Your task to perform on an android device: Clear the cart on target. Search for "razer kraken" on target, select the first entry, and add it to the cart. Image 0: 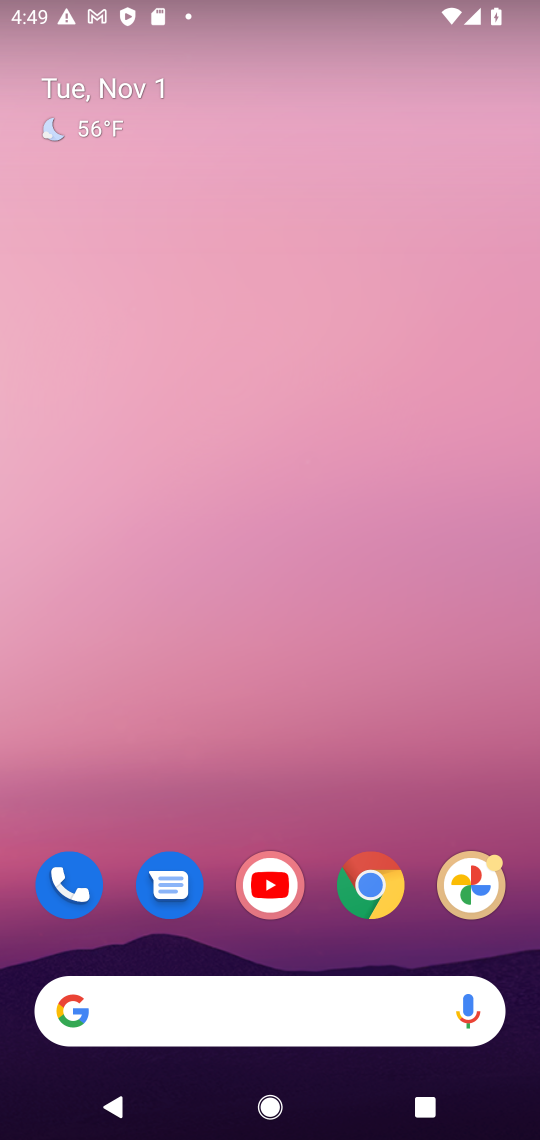
Step 0: click (369, 884)
Your task to perform on an android device: Clear the cart on target. Search for "razer kraken" on target, select the first entry, and add it to the cart. Image 1: 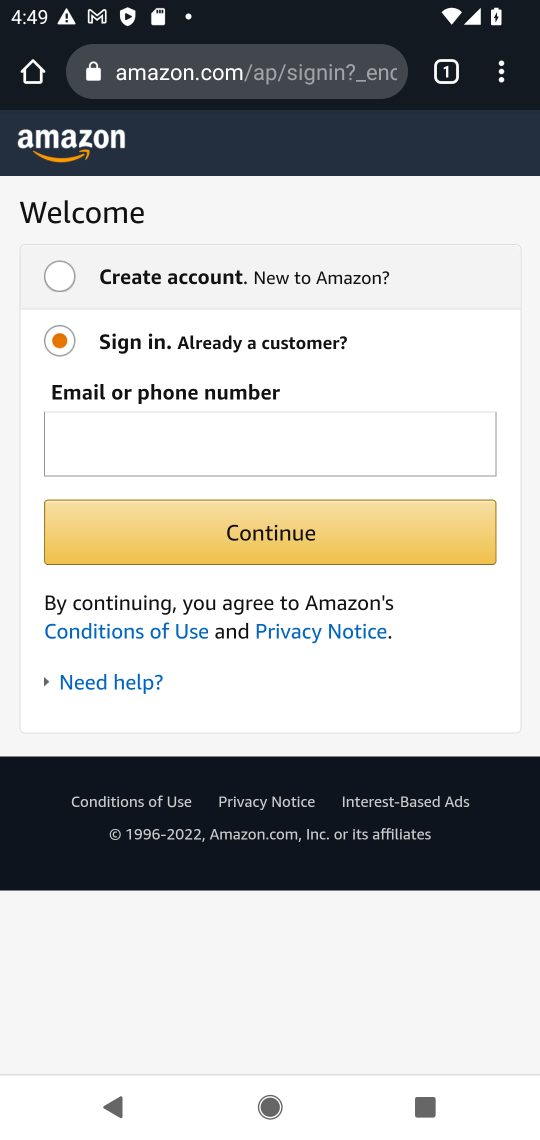
Step 1: click (251, 58)
Your task to perform on an android device: Clear the cart on target. Search for "razer kraken" on target, select the first entry, and add it to the cart. Image 2: 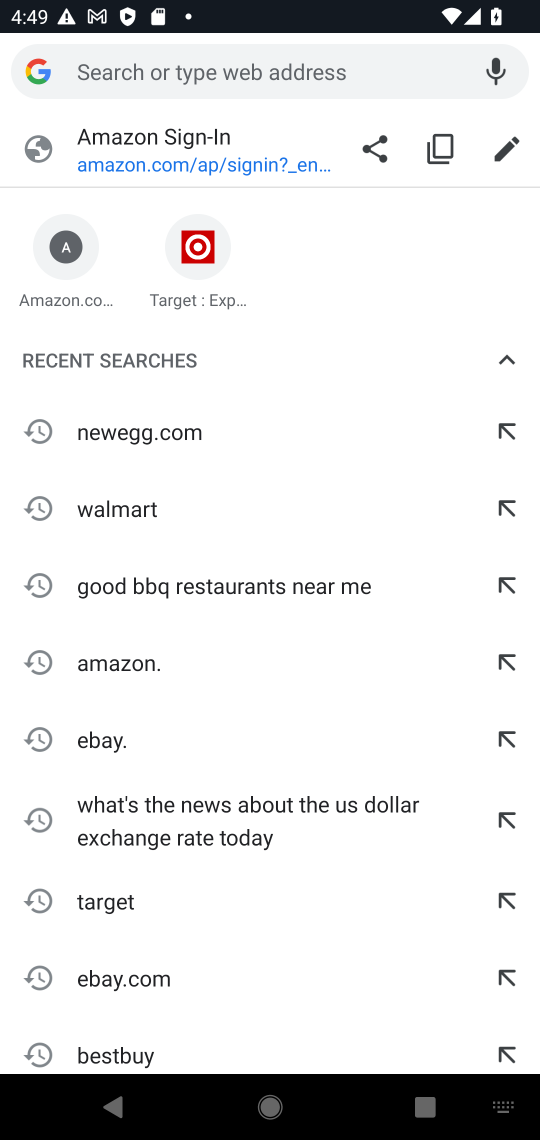
Step 2: type "target.com"
Your task to perform on an android device: Clear the cart on target. Search for "razer kraken" on target, select the first entry, and add it to the cart. Image 3: 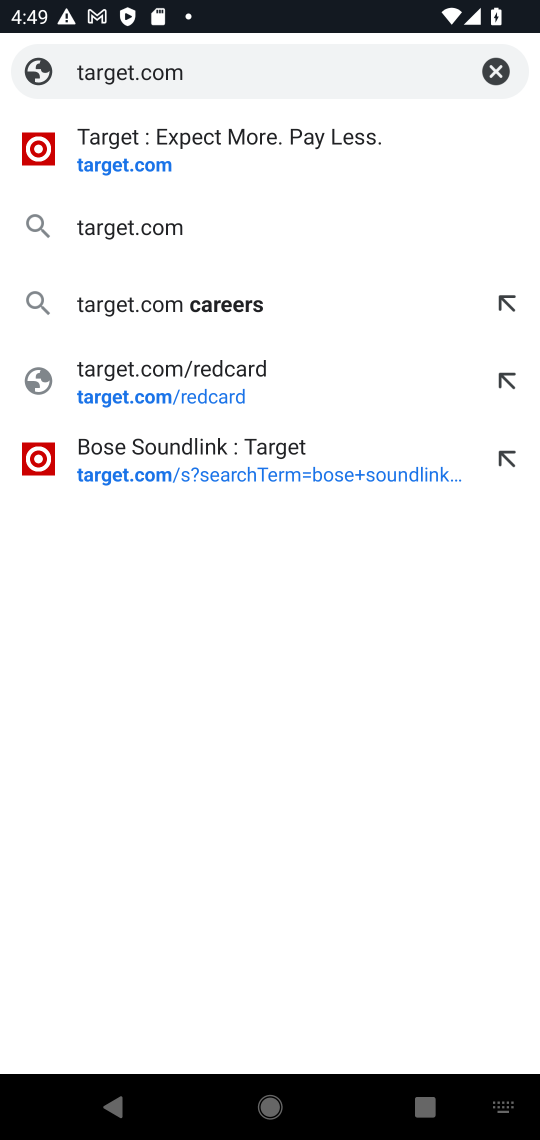
Step 3: click (140, 146)
Your task to perform on an android device: Clear the cart on target. Search for "razer kraken" on target, select the first entry, and add it to the cart. Image 4: 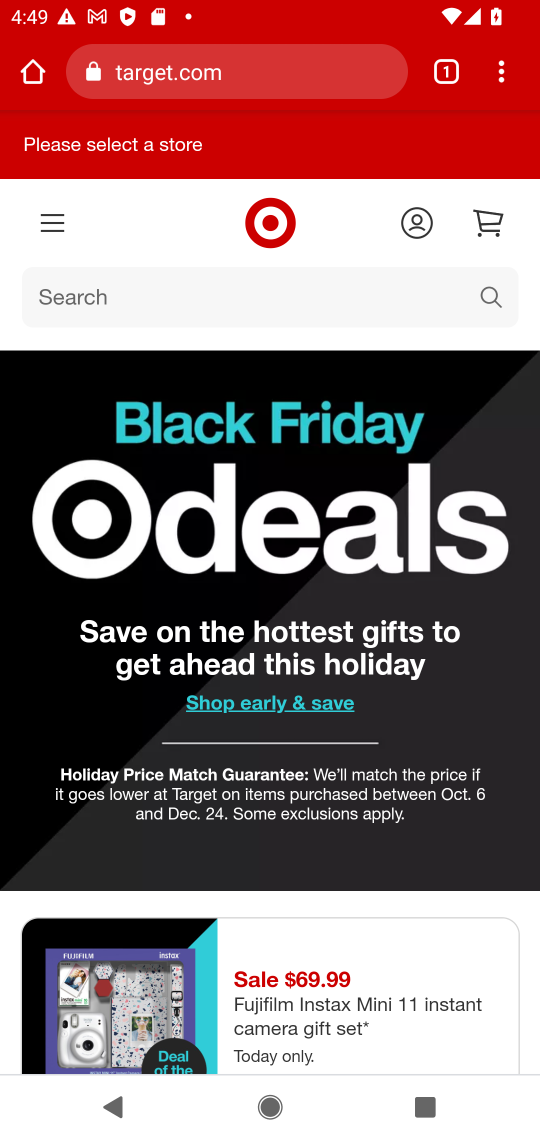
Step 4: click (484, 220)
Your task to perform on an android device: Clear the cart on target. Search for "razer kraken" on target, select the first entry, and add it to the cart. Image 5: 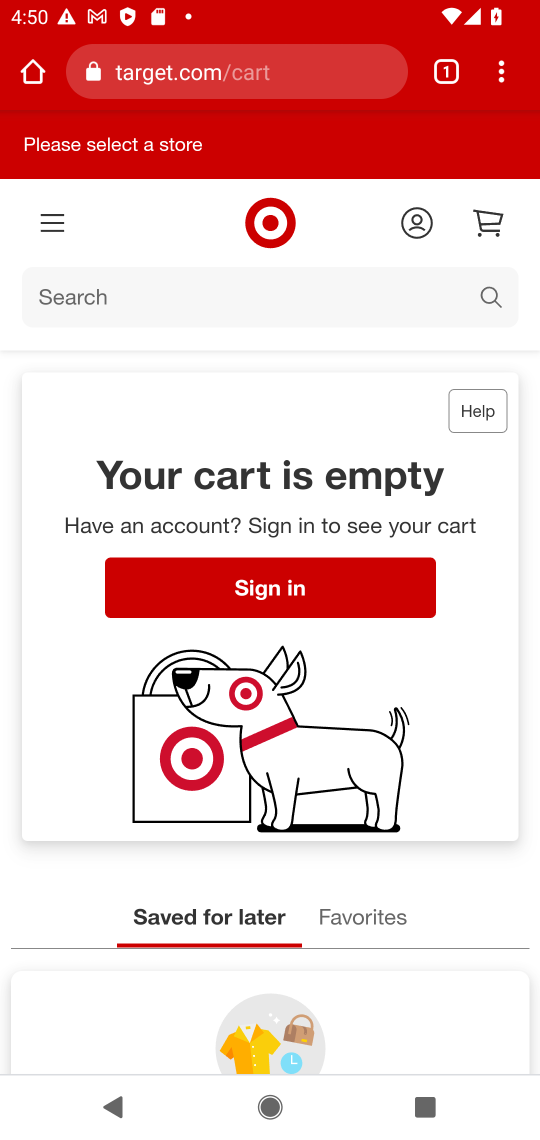
Step 5: click (89, 278)
Your task to perform on an android device: Clear the cart on target. Search for "razer kraken" on target, select the first entry, and add it to the cart. Image 6: 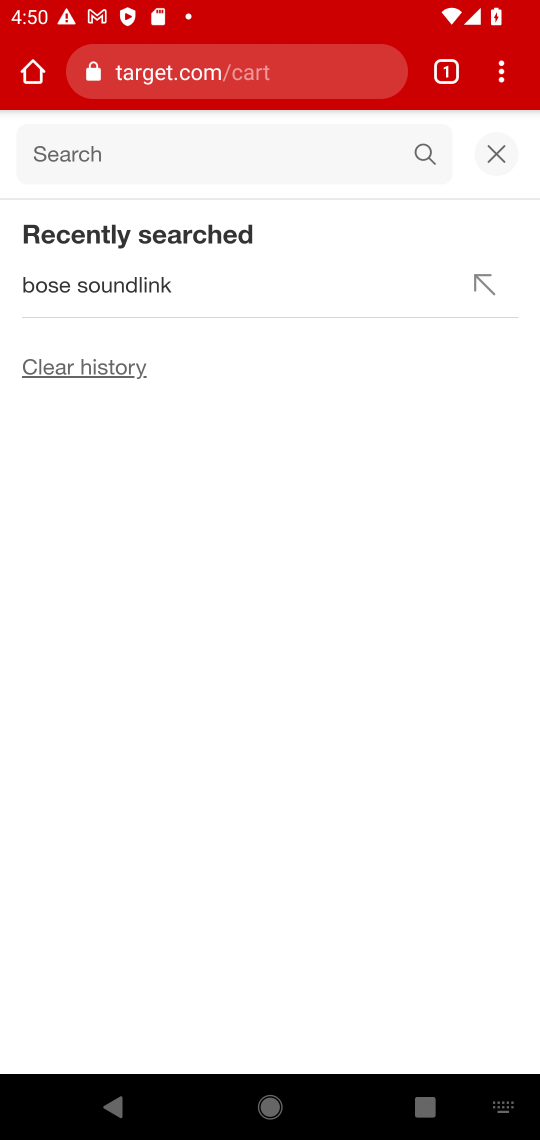
Step 6: type "razer kraken"
Your task to perform on an android device: Clear the cart on target. Search for "razer kraken" on target, select the first entry, and add it to the cart. Image 7: 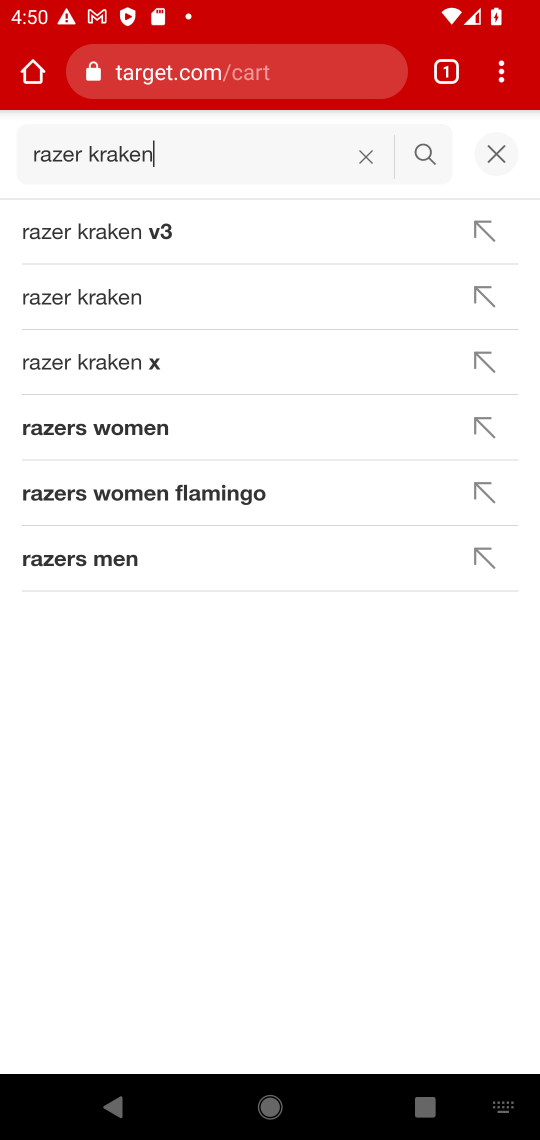
Step 7: click (94, 300)
Your task to perform on an android device: Clear the cart on target. Search for "razer kraken" on target, select the first entry, and add it to the cart. Image 8: 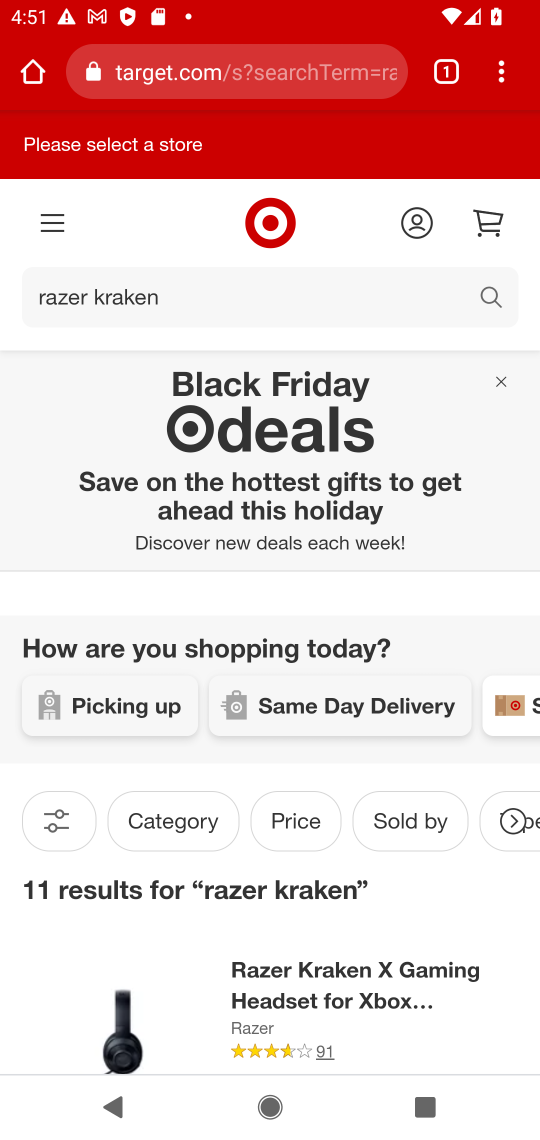
Step 8: drag from (339, 958) to (309, 440)
Your task to perform on an android device: Clear the cart on target. Search for "razer kraken" on target, select the first entry, and add it to the cart. Image 9: 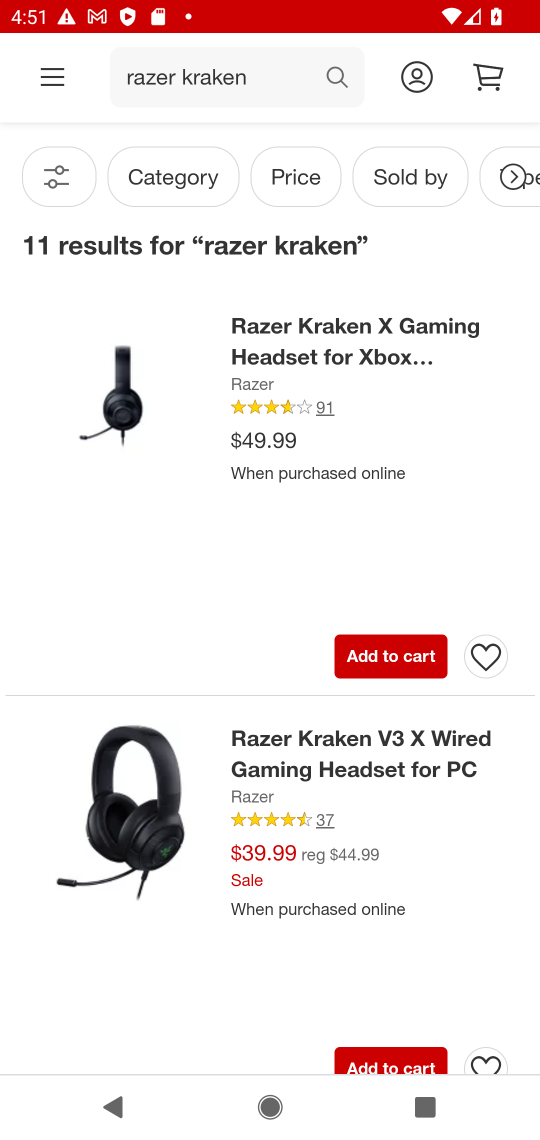
Step 9: click (280, 336)
Your task to perform on an android device: Clear the cart on target. Search for "razer kraken" on target, select the first entry, and add it to the cart. Image 10: 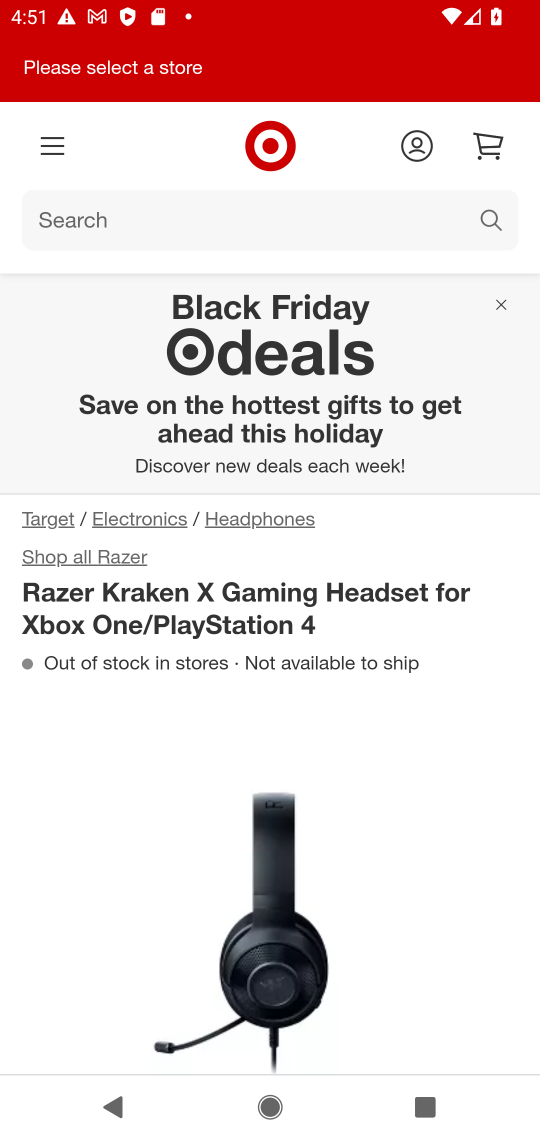
Step 10: drag from (396, 751) to (359, 174)
Your task to perform on an android device: Clear the cart on target. Search for "razer kraken" on target, select the first entry, and add it to the cart. Image 11: 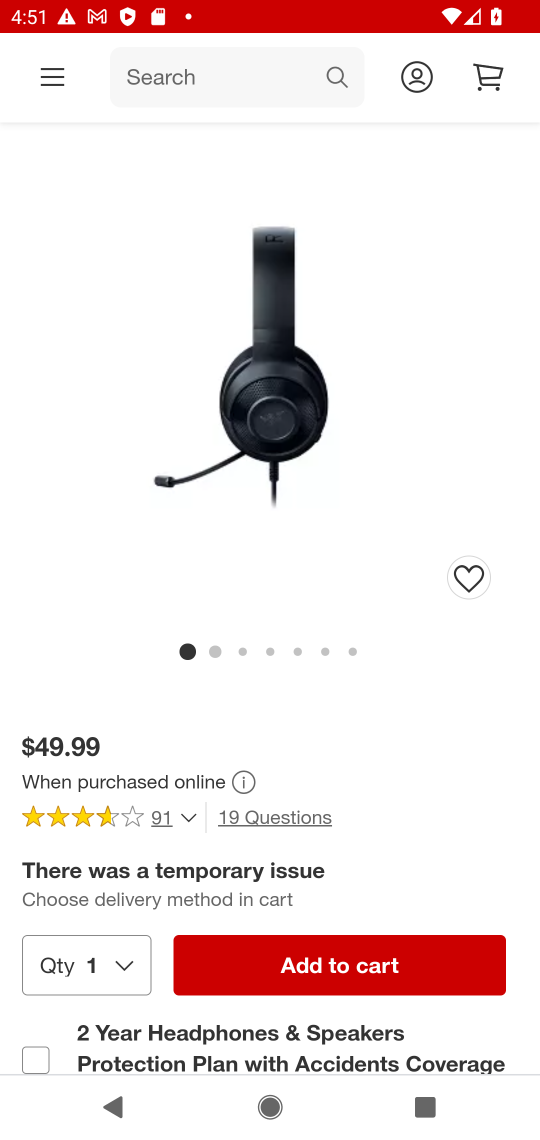
Step 11: click (340, 962)
Your task to perform on an android device: Clear the cart on target. Search for "razer kraken" on target, select the first entry, and add it to the cart. Image 12: 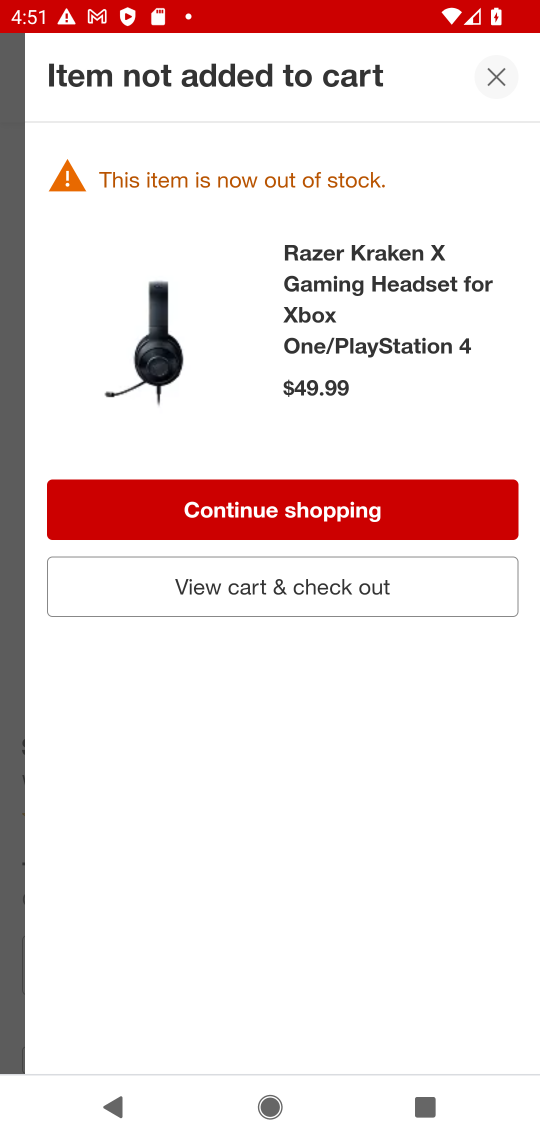
Step 12: task complete